Your task to perform on an android device: see creations saved in the google photos Image 0: 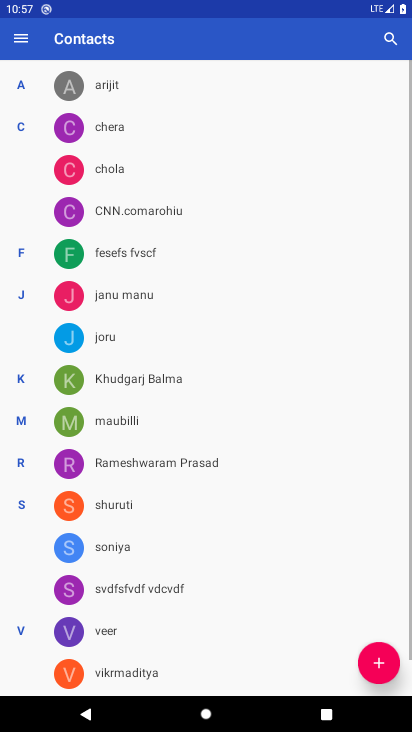
Step 0: drag from (315, 598) to (306, 136)
Your task to perform on an android device: see creations saved in the google photos Image 1: 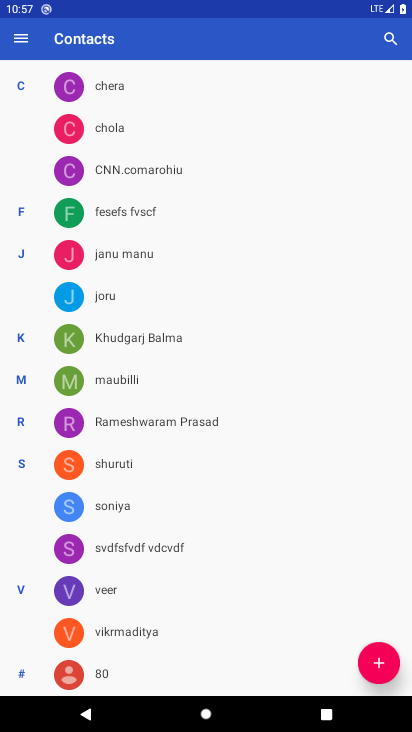
Step 1: press home button
Your task to perform on an android device: see creations saved in the google photos Image 2: 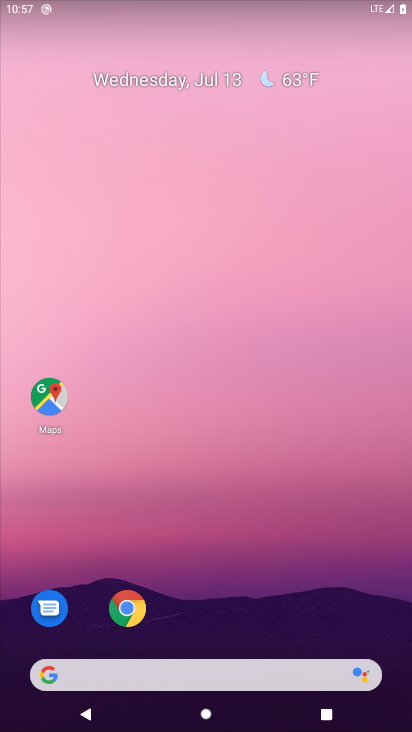
Step 2: drag from (280, 569) to (320, 178)
Your task to perform on an android device: see creations saved in the google photos Image 3: 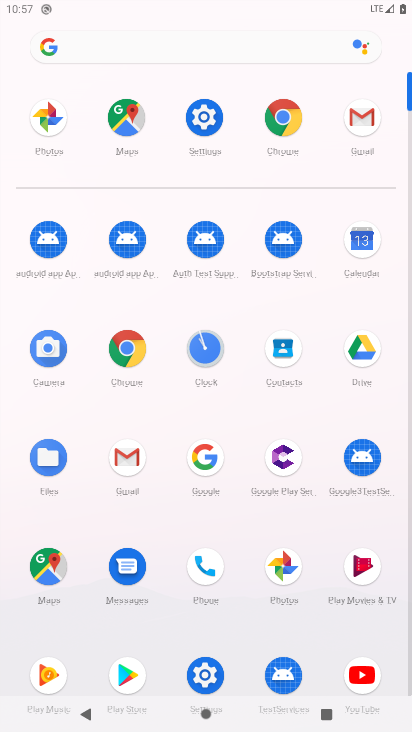
Step 3: click (290, 565)
Your task to perform on an android device: see creations saved in the google photos Image 4: 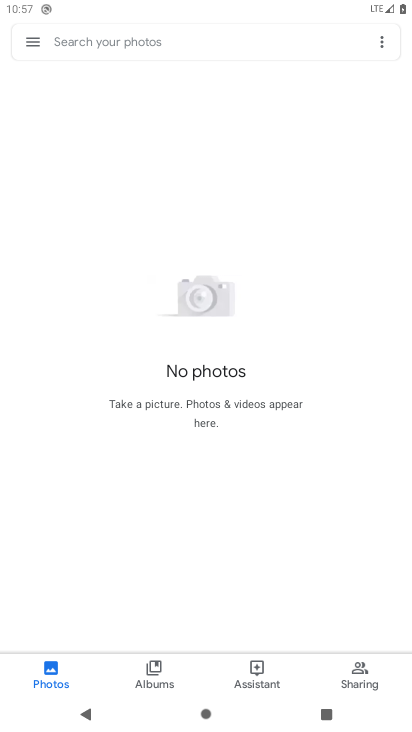
Step 4: click (229, 44)
Your task to perform on an android device: see creations saved in the google photos Image 5: 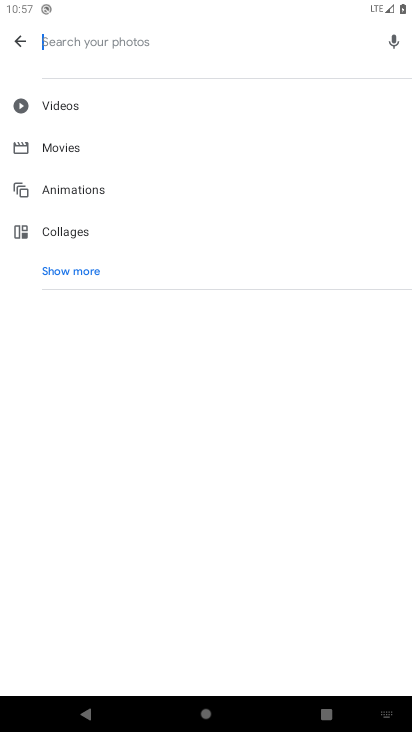
Step 5: click (67, 268)
Your task to perform on an android device: see creations saved in the google photos Image 6: 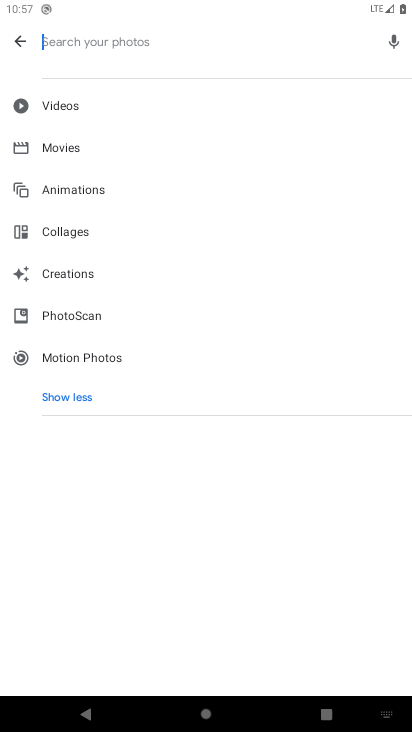
Step 6: click (72, 267)
Your task to perform on an android device: see creations saved in the google photos Image 7: 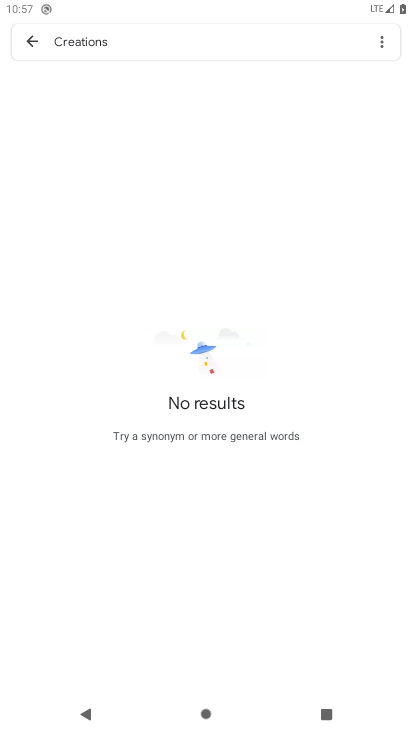
Step 7: task complete